Your task to perform on an android device: See recent photos Image 0: 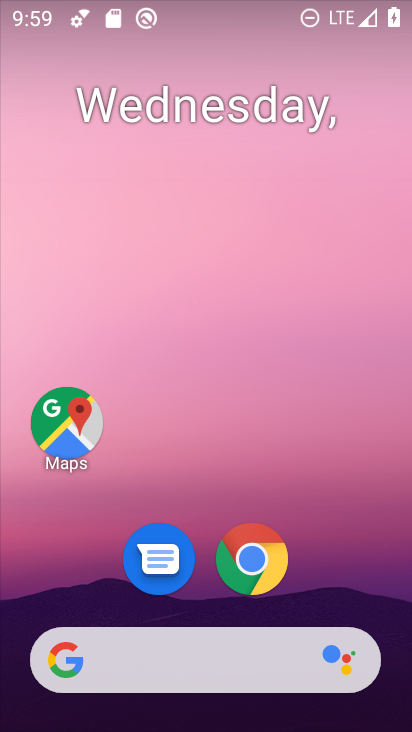
Step 0: drag from (202, 470) to (157, 25)
Your task to perform on an android device: See recent photos Image 1: 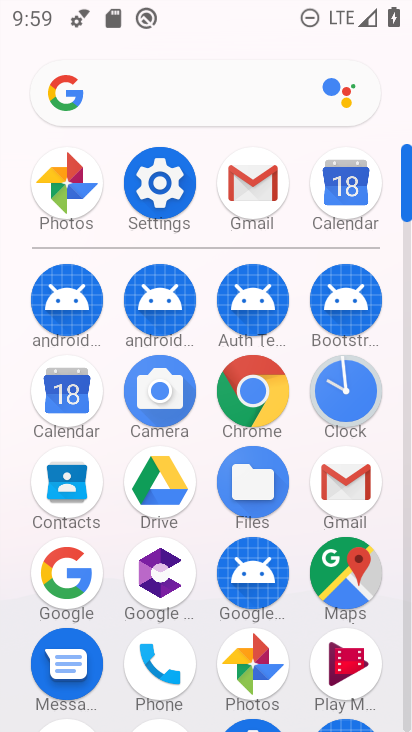
Step 1: click (59, 196)
Your task to perform on an android device: See recent photos Image 2: 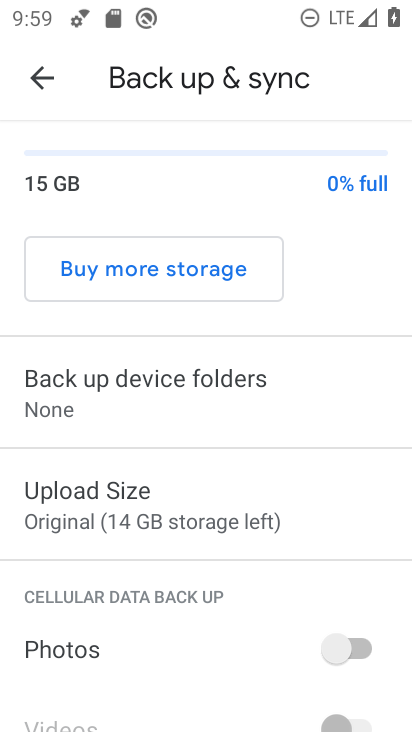
Step 2: click (37, 67)
Your task to perform on an android device: See recent photos Image 3: 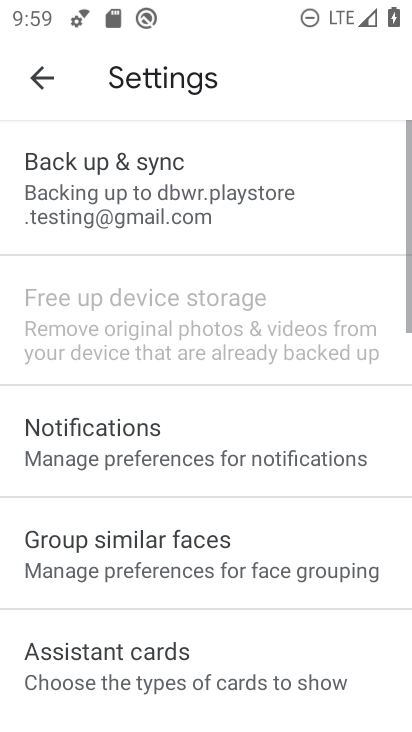
Step 3: click (37, 67)
Your task to perform on an android device: See recent photos Image 4: 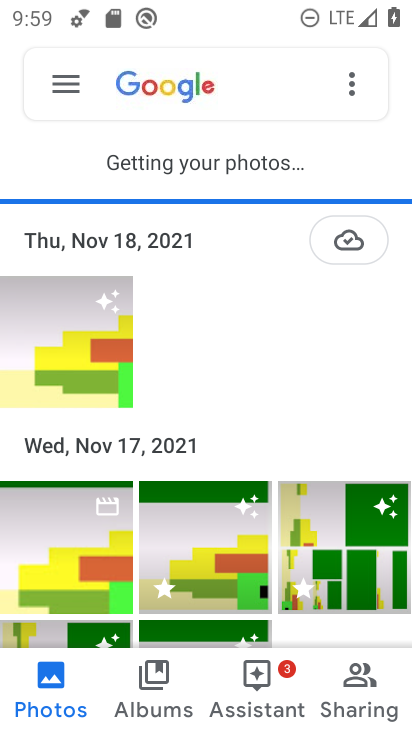
Step 4: task complete